Your task to perform on an android device: set the stopwatch Image 0: 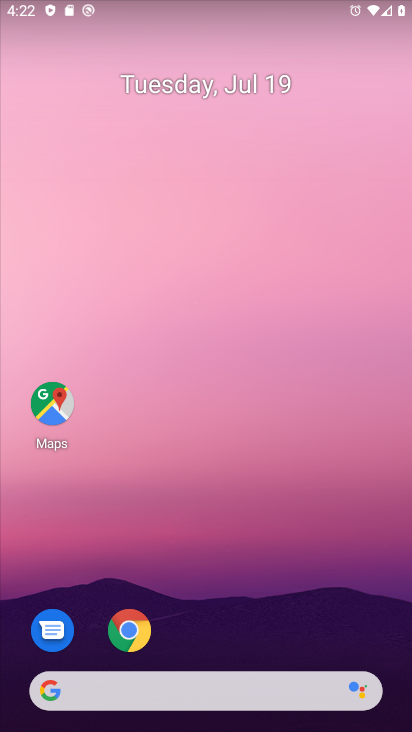
Step 0: drag from (198, 556) to (276, 6)
Your task to perform on an android device: set the stopwatch Image 1: 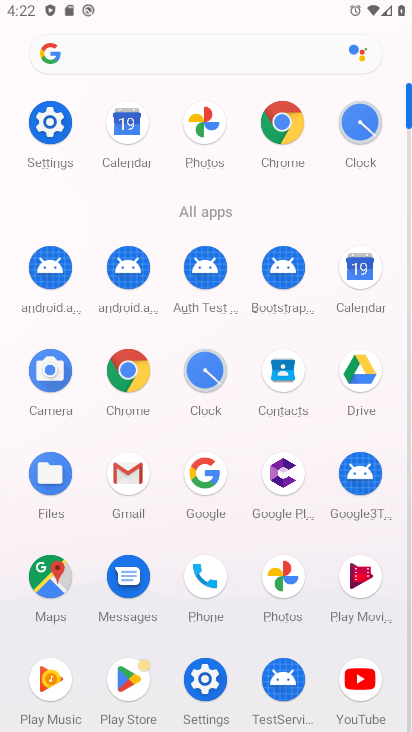
Step 1: click (209, 377)
Your task to perform on an android device: set the stopwatch Image 2: 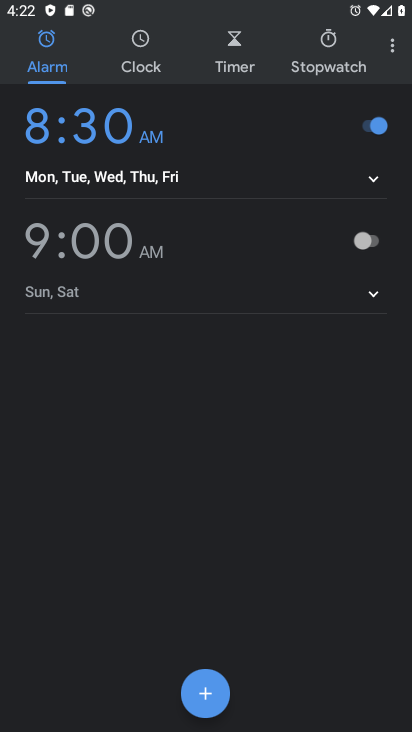
Step 2: click (316, 57)
Your task to perform on an android device: set the stopwatch Image 3: 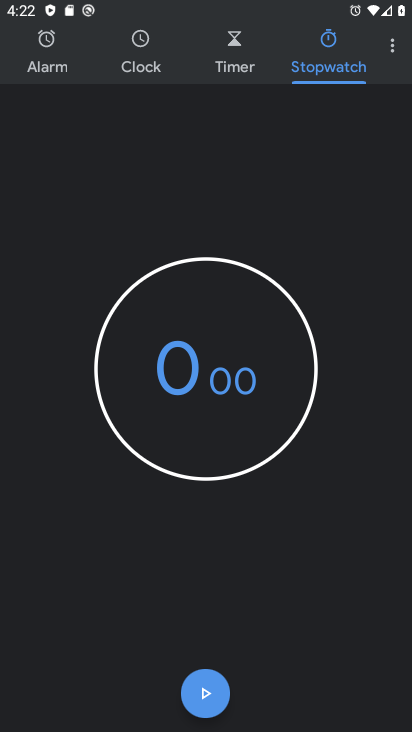
Step 3: click (194, 675)
Your task to perform on an android device: set the stopwatch Image 4: 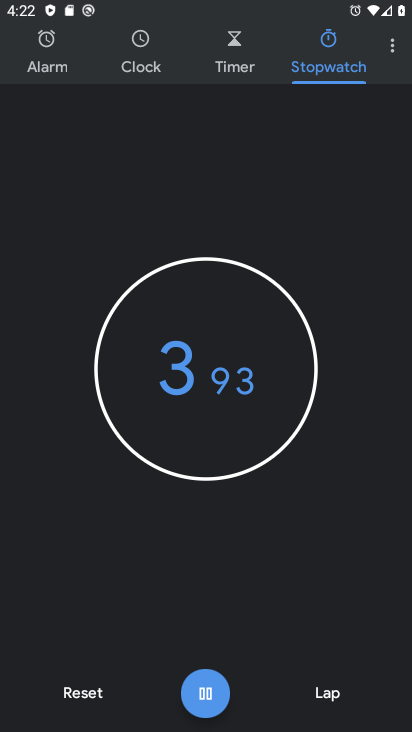
Step 4: click (197, 694)
Your task to perform on an android device: set the stopwatch Image 5: 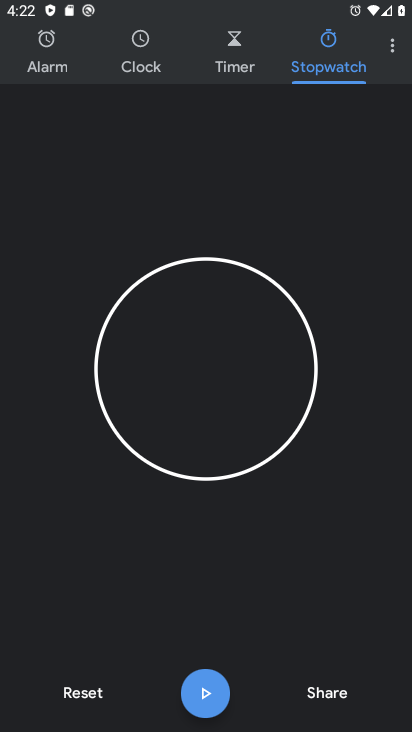
Step 5: task complete